Your task to perform on an android device: Search for "usb-a" on bestbuy.com, select the first entry, and add it to the cart. Image 0: 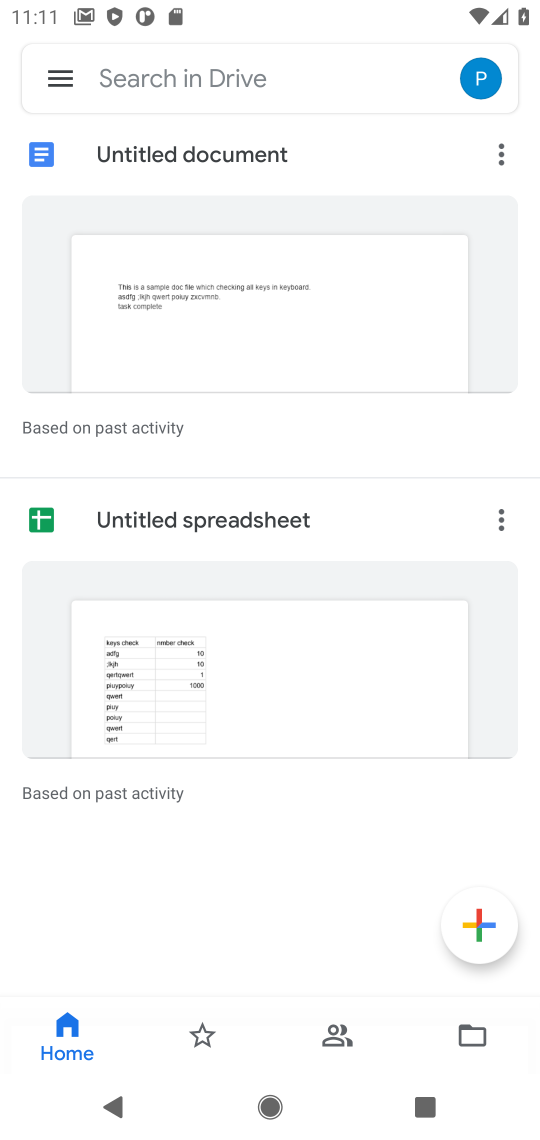
Step 0: press home button
Your task to perform on an android device: Search for "usb-a" on bestbuy.com, select the first entry, and add it to the cart. Image 1: 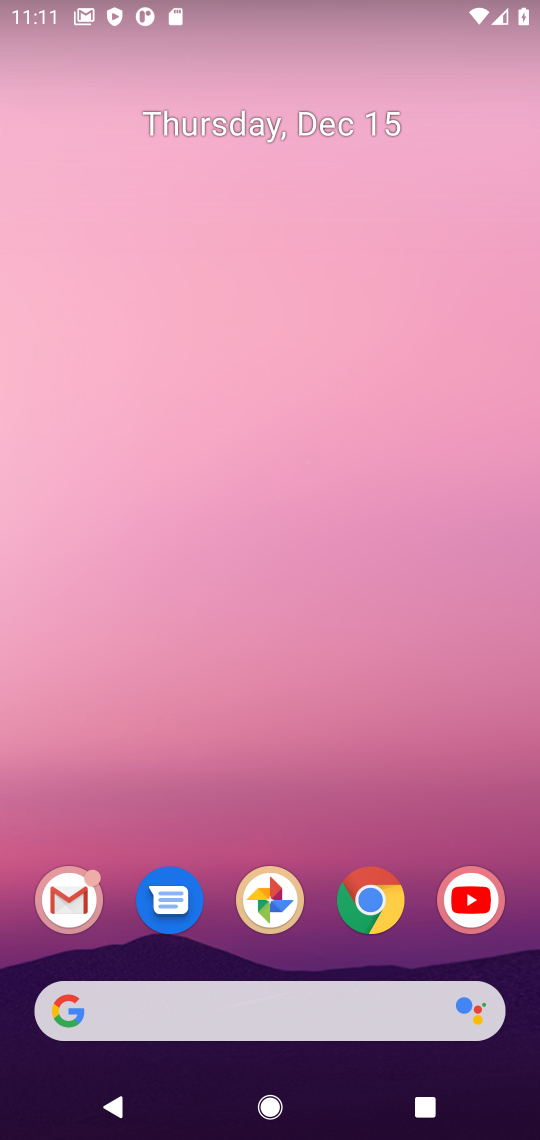
Step 1: click (377, 892)
Your task to perform on an android device: Search for "usb-a" on bestbuy.com, select the first entry, and add it to the cart. Image 2: 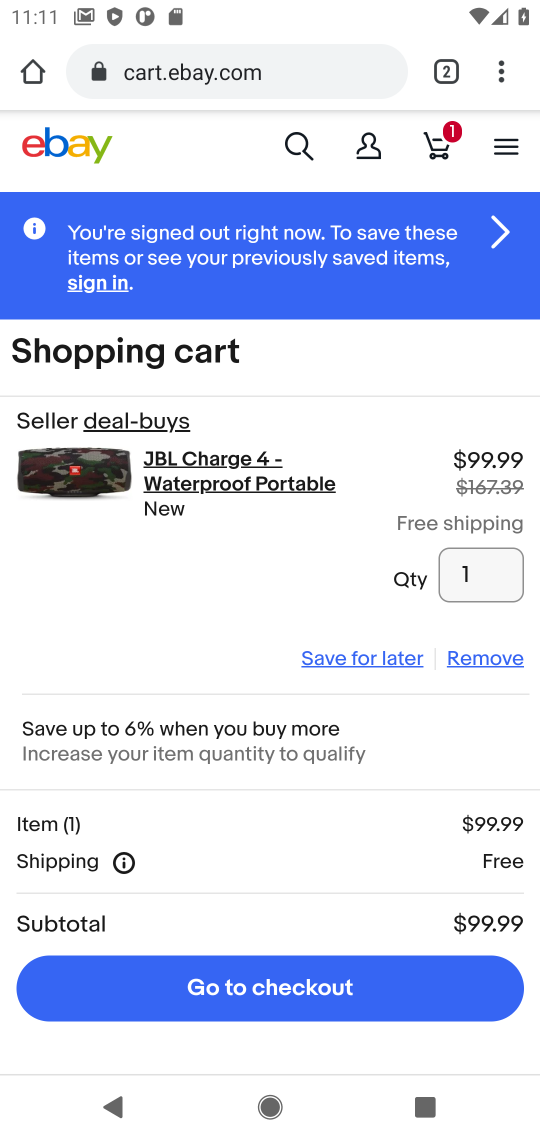
Step 2: click (230, 82)
Your task to perform on an android device: Search for "usb-a" on bestbuy.com, select the first entry, and add it to the cart. Image 3: 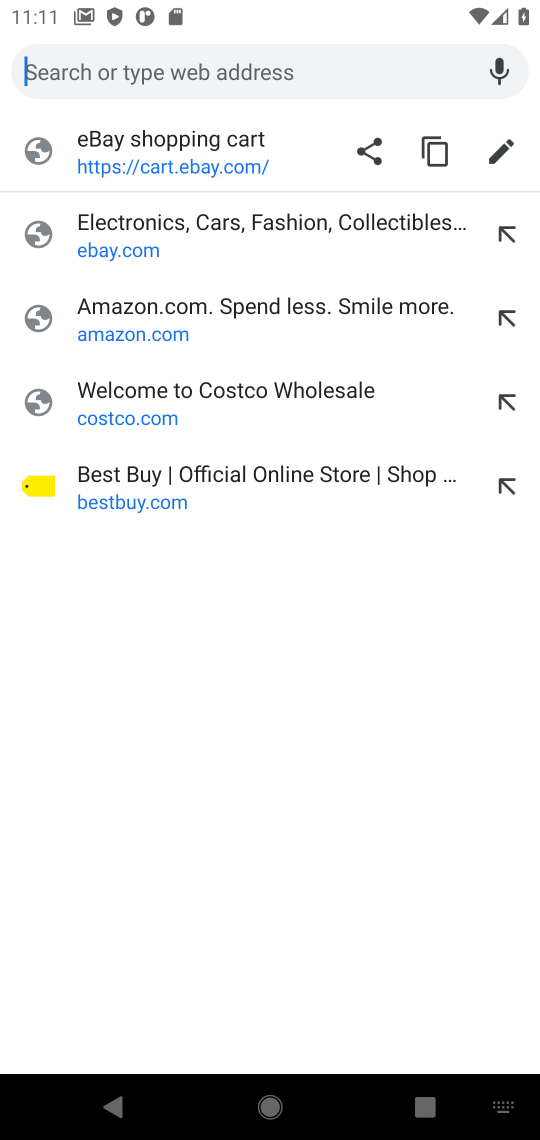
Step 3: type "bestbuy.com"
Your task to perform on an android device: Search for "usb-a" on bestbuy.com, select the first entry, and add it to the cart. Image 4: 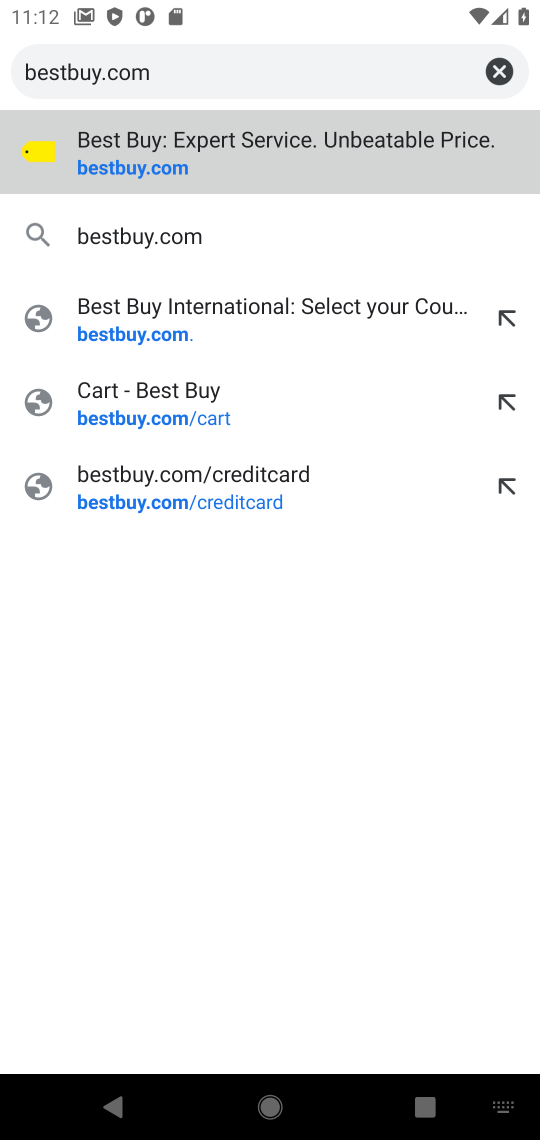
Step 4: click (321, 175)
Your task to perform on an android device: Search for "usb-a" on bestbuy.com, select the first entry, and add it to the cart. Image 5: 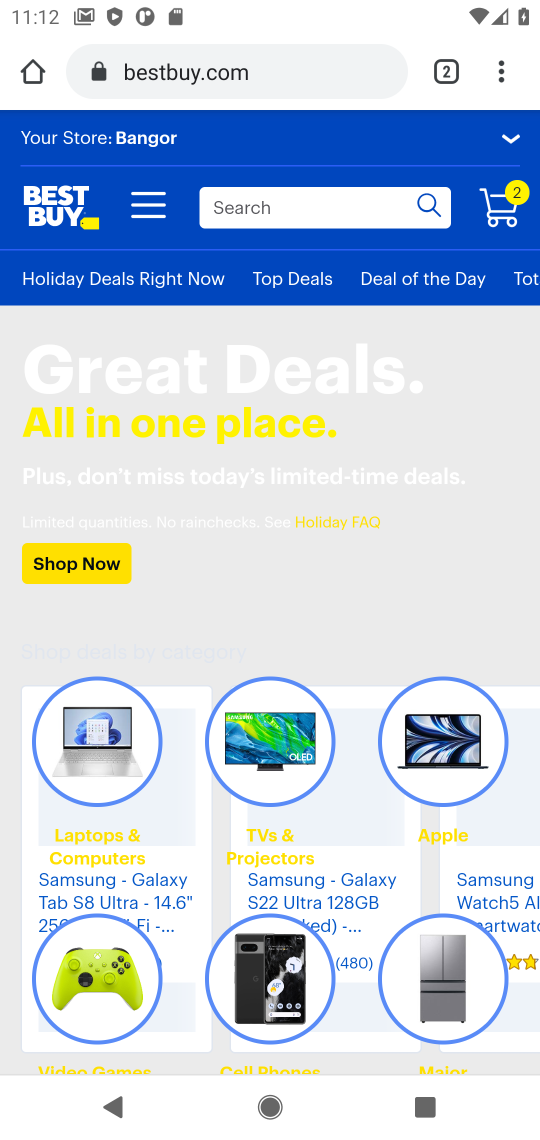
Step 5: click (324, 200)
Your task to perform on an android device: Search for "usb-a" on bestbuy.com, select the first entry, and add it to the cart. Image 6: 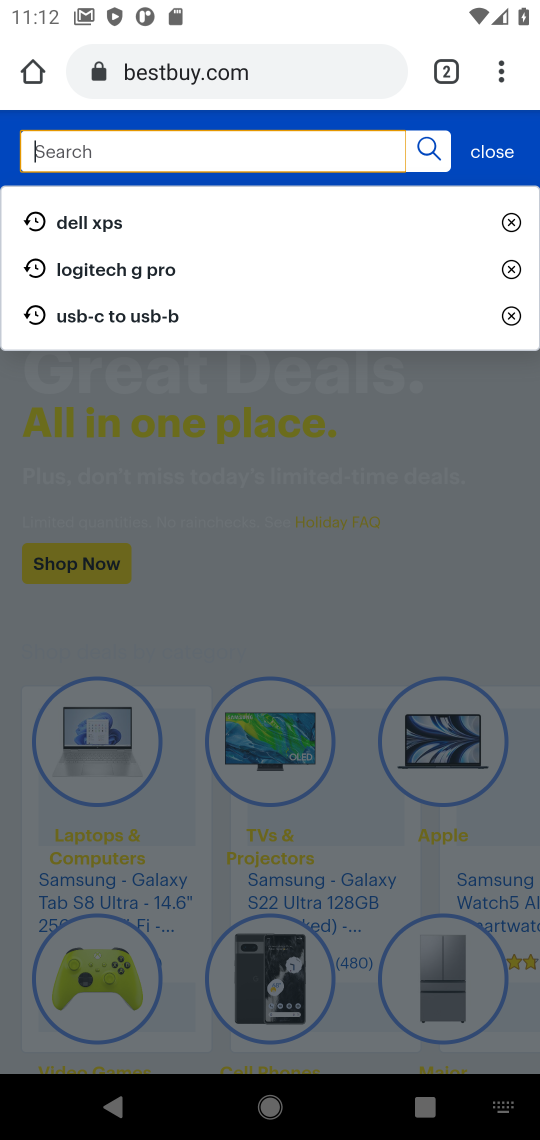
Step 6: type "usb-a"
Your task to perform on an android device: Search for "usb-a" on bestbuy.com, select the first entry, and add it to the cart. Image 7: 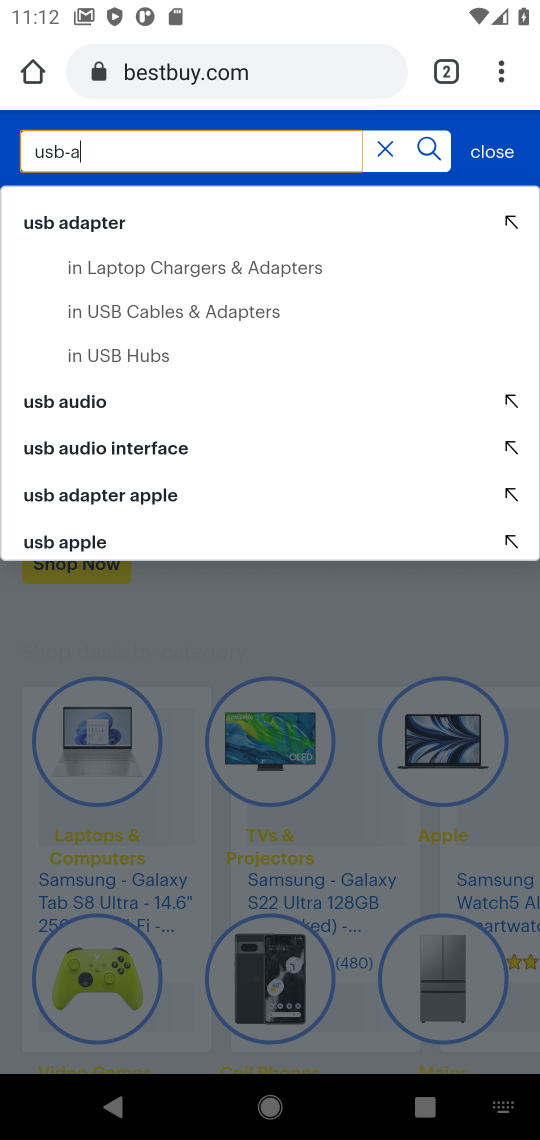
Step 7: click (431, 149)
Your task to perform on an android device: Search for "usb-a" on bestbuy.com, select the first entry, and add it to the cart. Image 8: 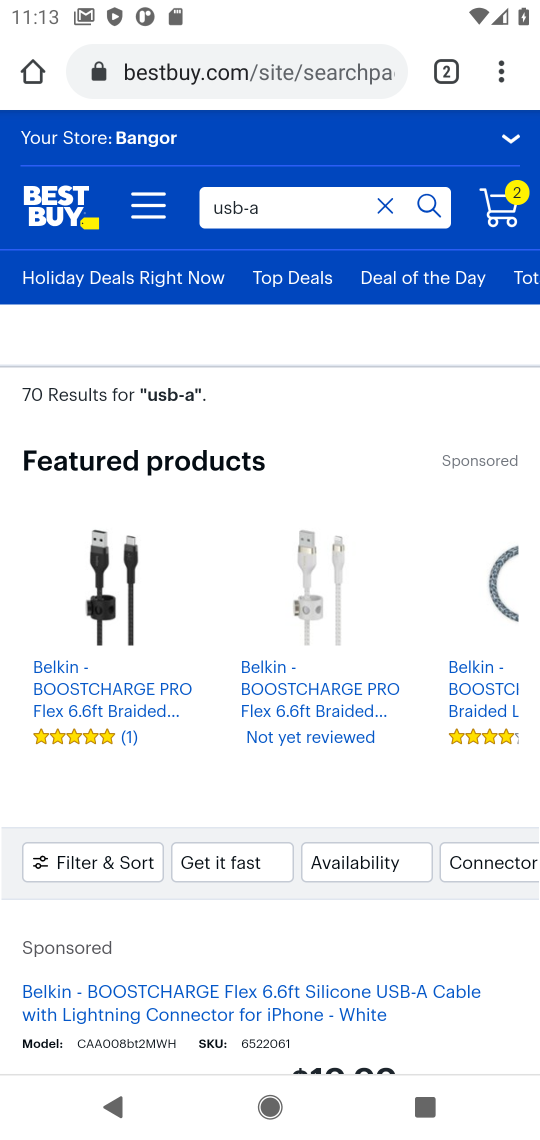
Step 8: drag from (518, 765) to (451, 362)
Your task to perform on an android device: Search for "usb-a" on bestbuy.com, select the first entry, and add it to the cart. Image 9: 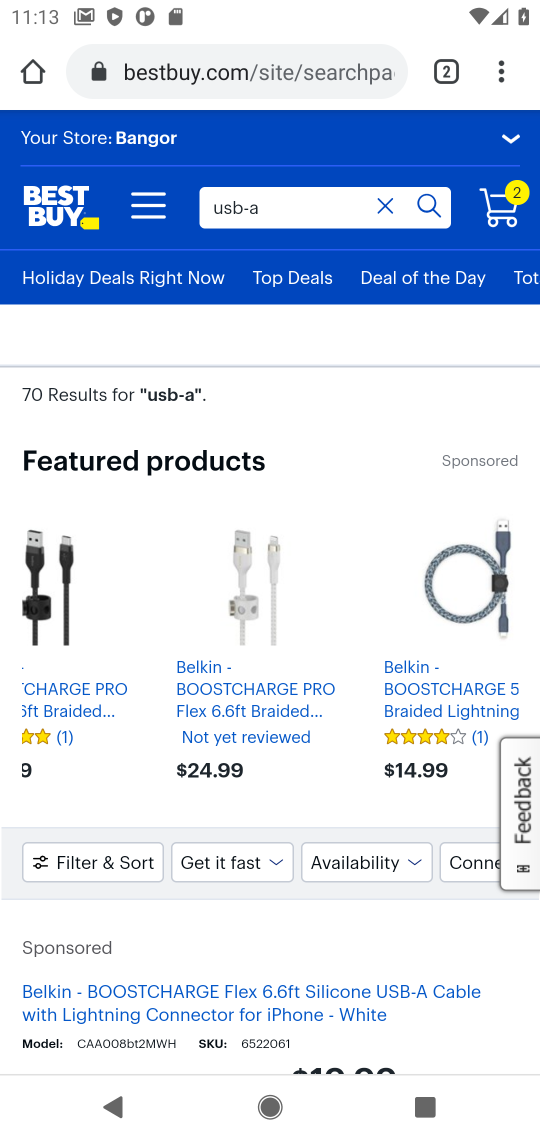
Step 9: drag from (392, 962) to (286, 189)
Your task to perform on an android device: Search for "usb-a" on bestbuy.com, select the first entry, and add it to the cart. Image 10: 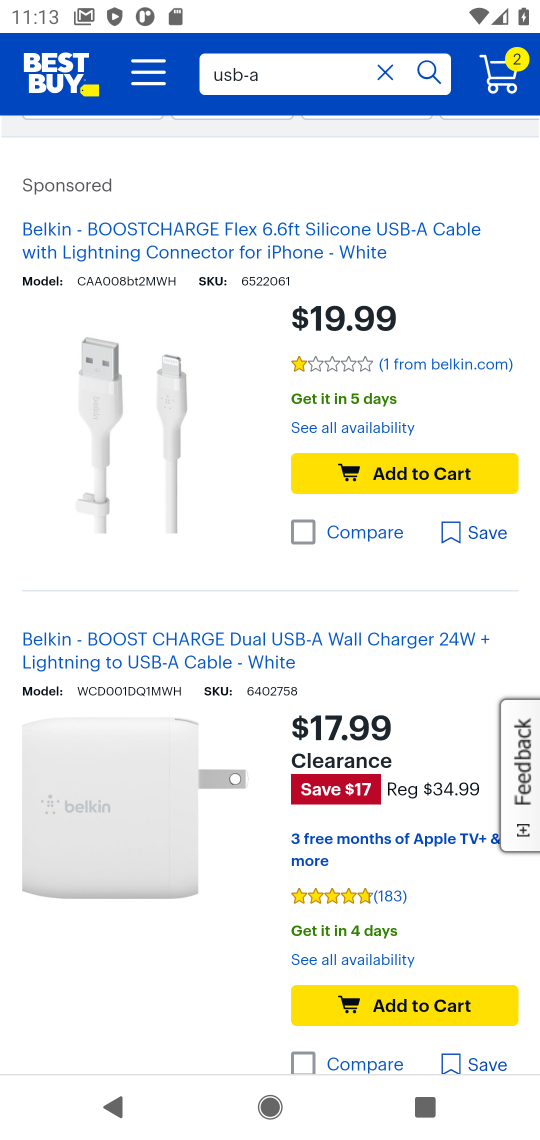
Step 10: click (349, 468)
Your task to perform on an android device: Search for "usb-a" on bestbuy.com, select the first entry, and add it to the cart. Image 11: 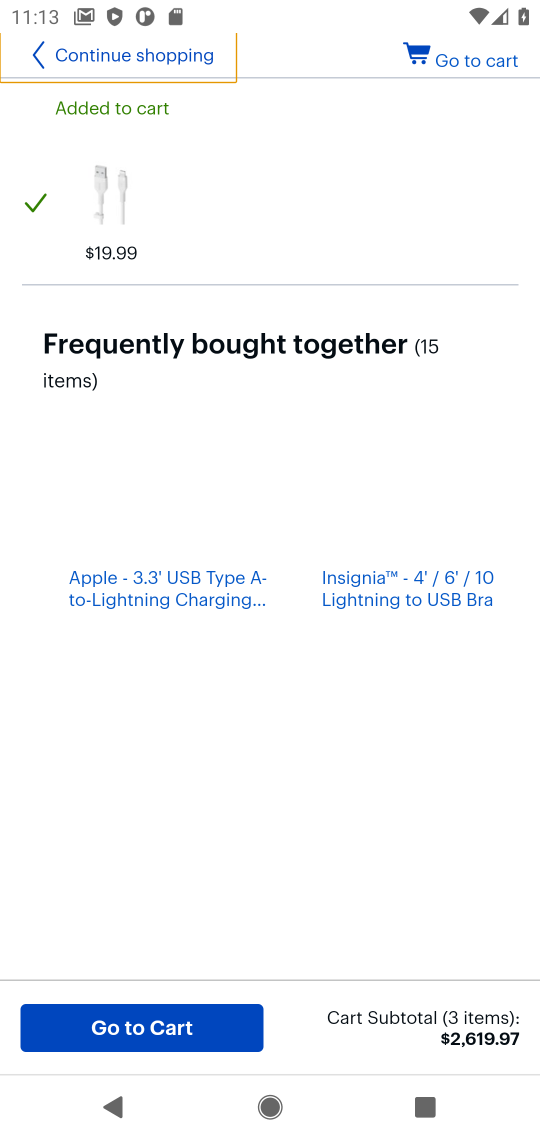
Step 11: click (105, 1022)
Your task to perform on an android device: Search for "usb-a" on bestbuy.com, select the first entry, and add it to the cart. Image 12: 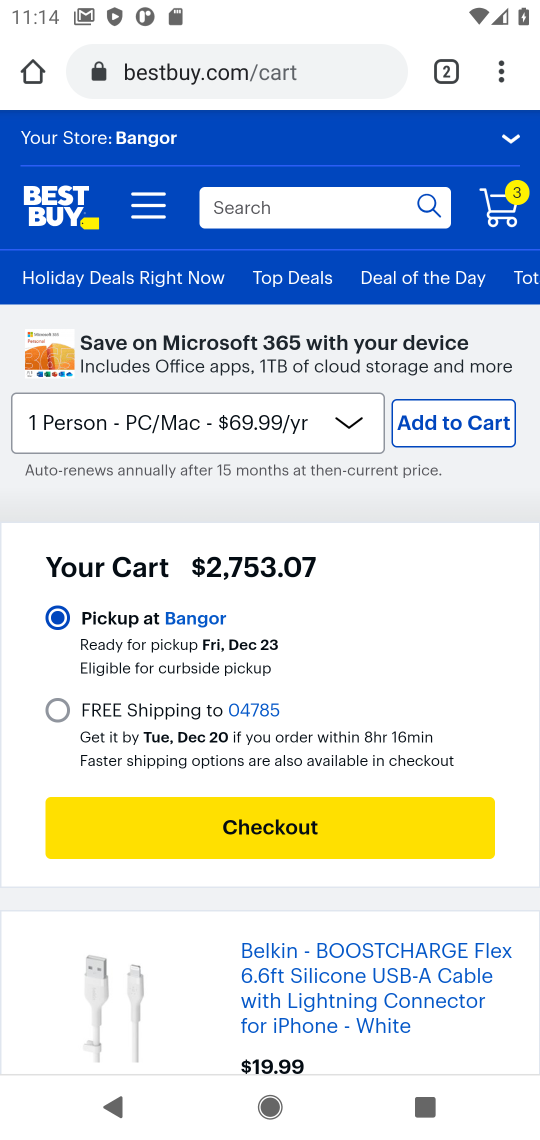
Step 12: task complete